Your task to perform on an android device: Open calendar and show me the fourth week of next month Image 0: 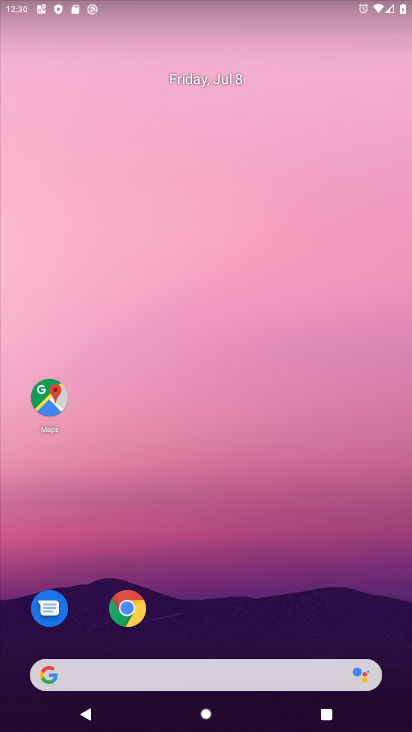
Step 0: drag from (48, 693) to (311, 107)
Your task to perform on an android device: Open calendar and show me the fourth week of next month Image 1: 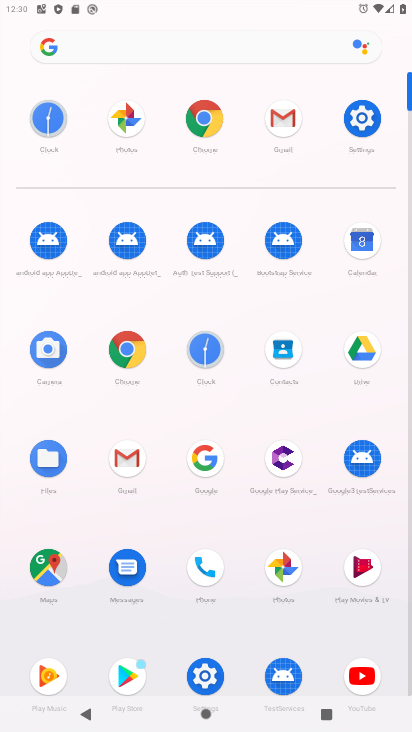
Step 1: click (362, 234)
Your task to perform on an android device: Open calendar and show me the fourth week of next month Image 2: 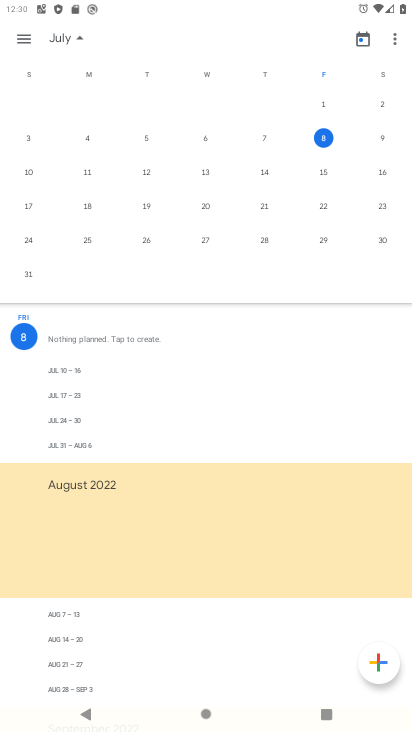
Step 2: drag from (293, 187) to (2, 173)
Your task to perform on an android device: Open calendar and show me the fourth week of next month Image 3: 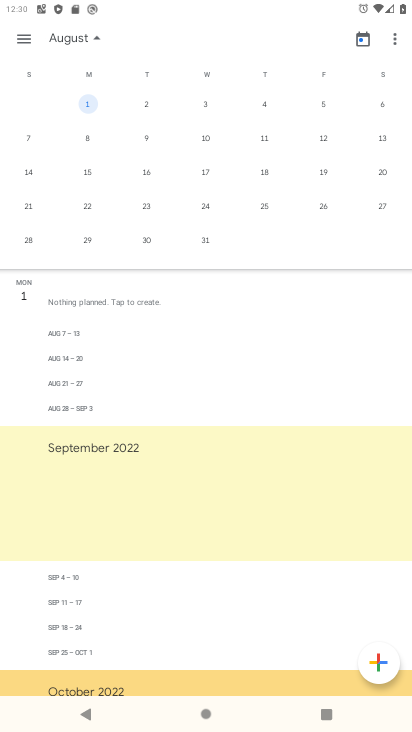
Step 3: click (88, 206)
Your task to perform on an android device: Open calendar and show me the fourth week of next month Image 4: 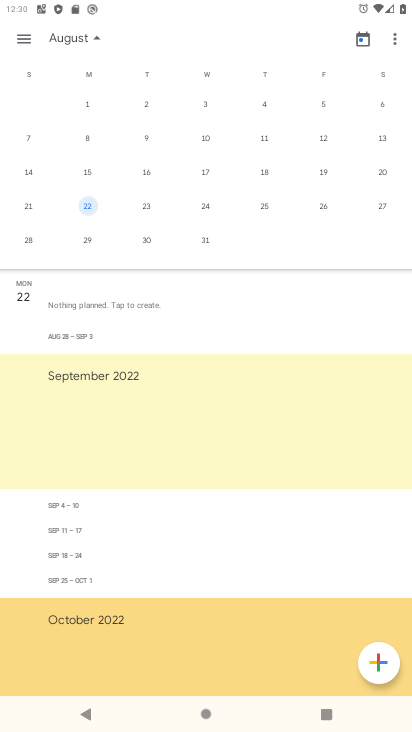
Step 4: task complete